Your task to perform on an android device: Open calendar and show me the second week of next month Image 0: 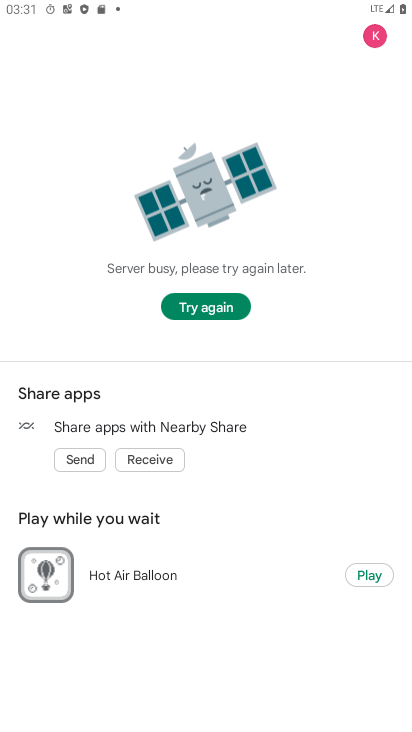
Step 0: press home button
Your task to perform on an android device: Open calendar and show me the second week of next month Image 1: 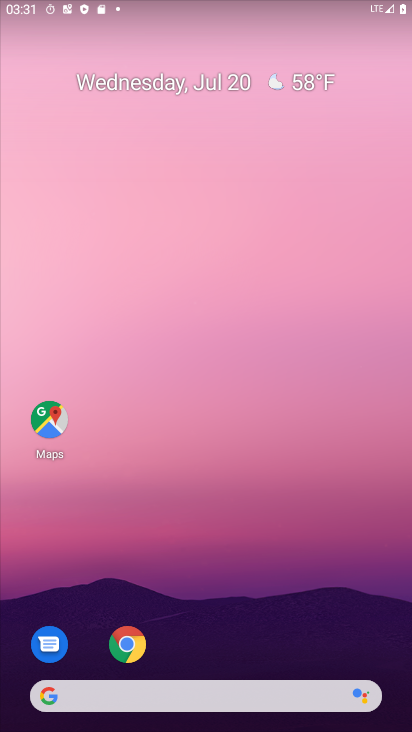
Step 1: drag from (72, 612) to (315, 26)
Your task to perform on an android device: Open calendar and show me the second week of next month Image 2: 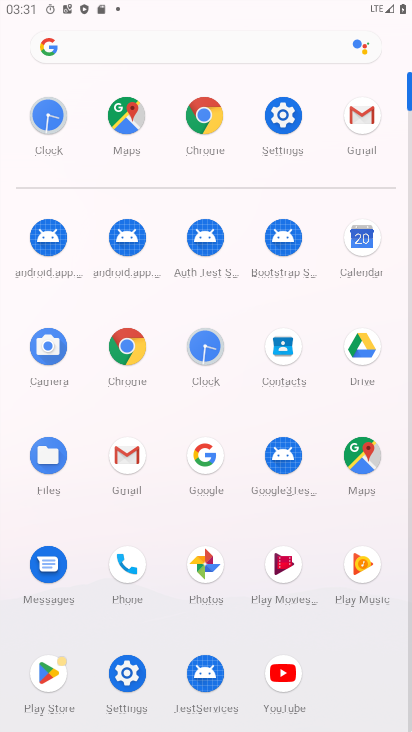
Step 2: click (365, 240)
Your task to perform on an android device: Open calendar and show me the second week of next month Image 3: 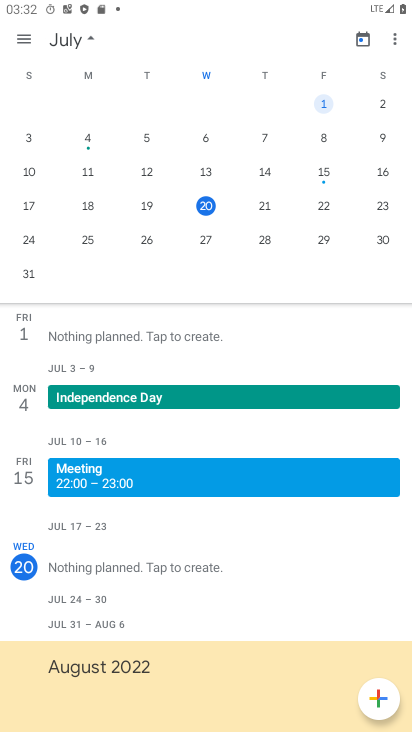
Step 3: drag from (386, 143) to (172, 163)
Your task to perform on an android device: Open calendar and show me the second week of next month Image 4: 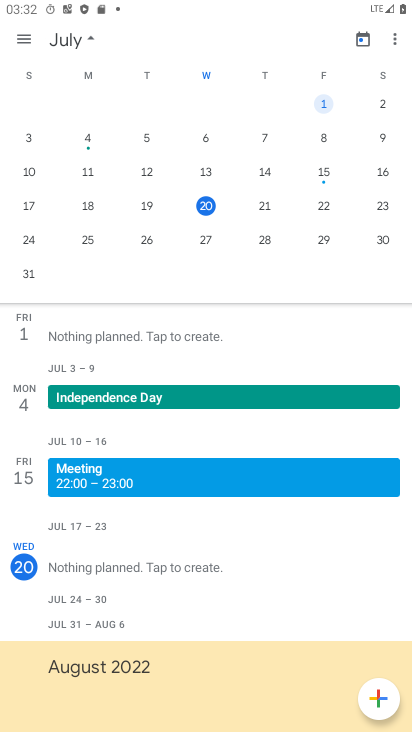
Step 4: click (41, 152)
Your task to perform on an android device: Open calendar and show me the second week of next month Image 5: 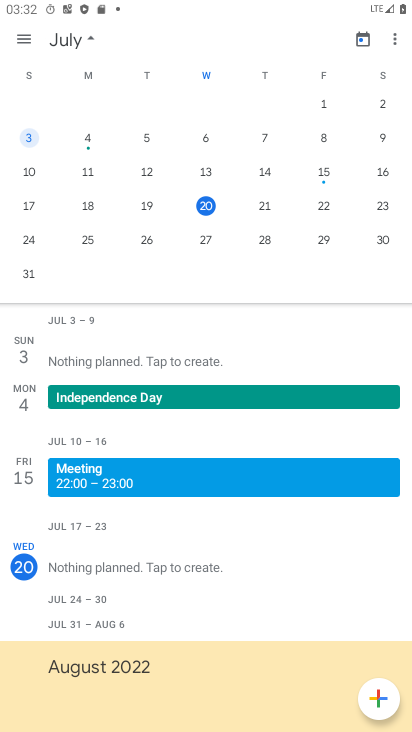
Step 5: drag from (394, 140) to (233, 130)
Your task to perform on an android device: Open calendar and show me the second week of next month Image 6: 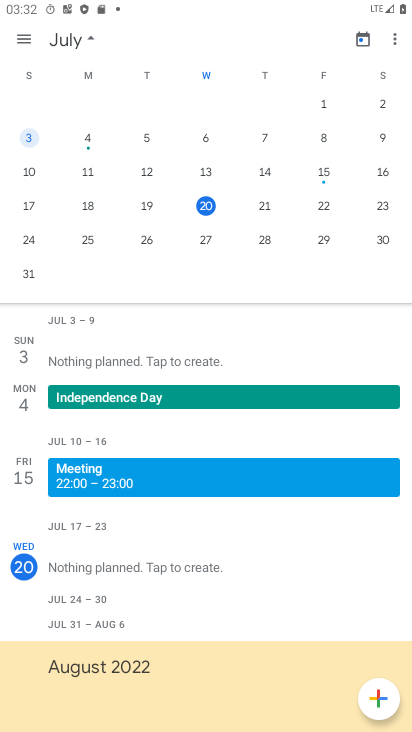
Step 6: drag from (387, 130) to (65, 167)
Your task to perform on an android device: Open calendar and show me the second week of next month Image 7: 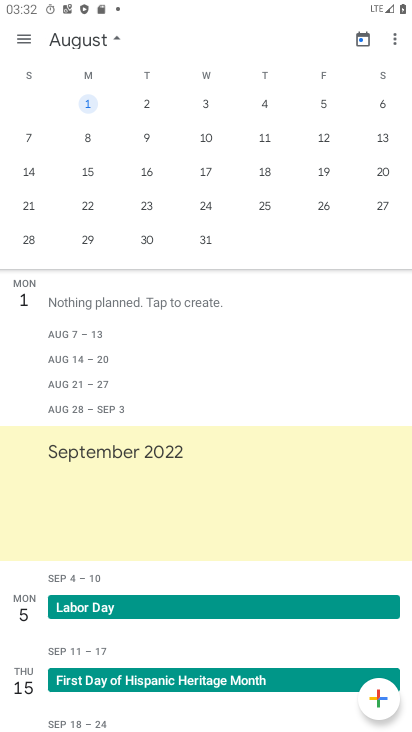
Step 7: click (85, 139)
Your task to perform on an android device: Open calendar and show me the second week of next month Image 8: 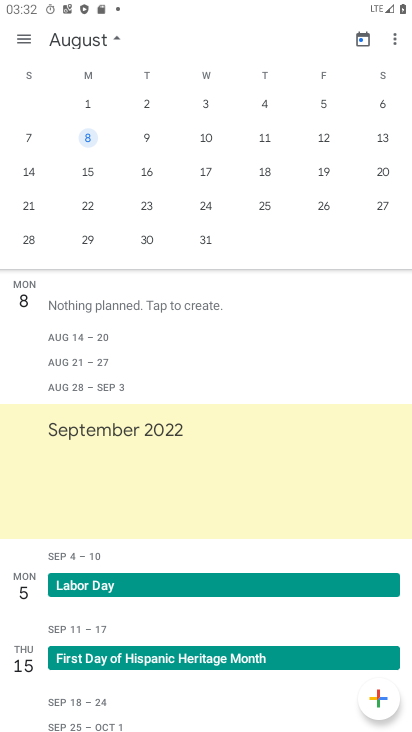
Step 8: task complete